Your task to perform on an android device: star an email in the gmail app Image 0: 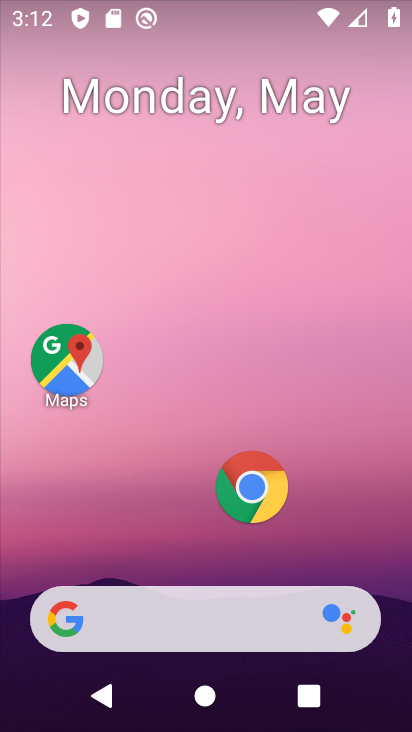
Step 0: drag from (165, 531) to (153, 54)
Your task to perform on an android device: star an email in the gmail app Image 1: 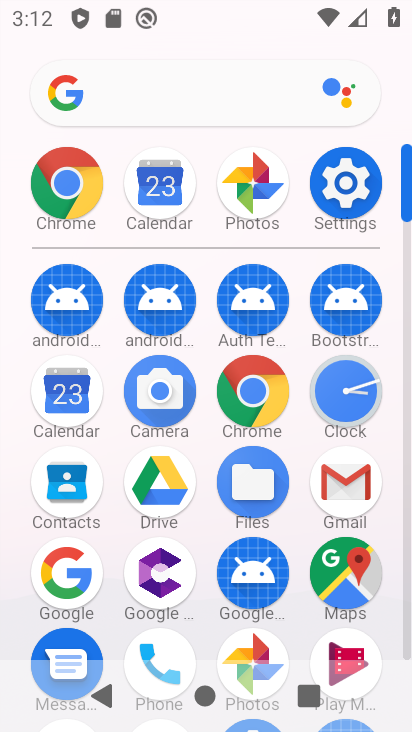
Step 1: click (349, 466)
Your task to perform on an android device: star an email in the gmail app Image 2: 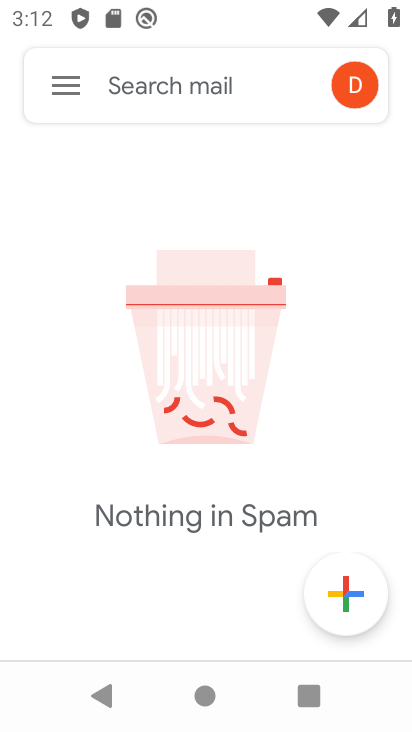
Step 2: click (57, 93)
Your task to perform on an android device: star an email in the gmail app Image 3: 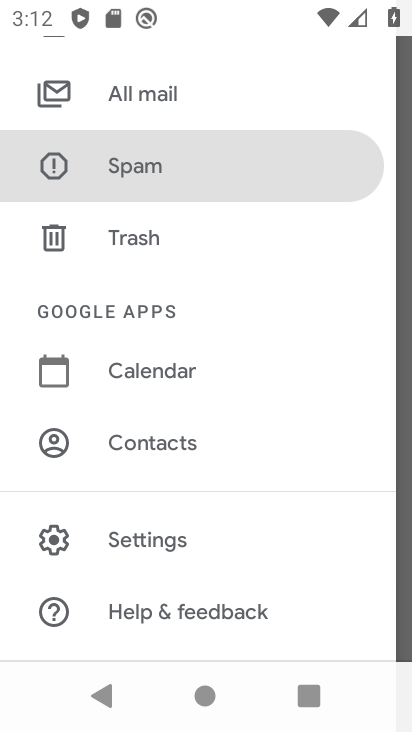
Step 3: click (164, 85)
Your task to perform on an android device: star an email in the gmail app Image 4: 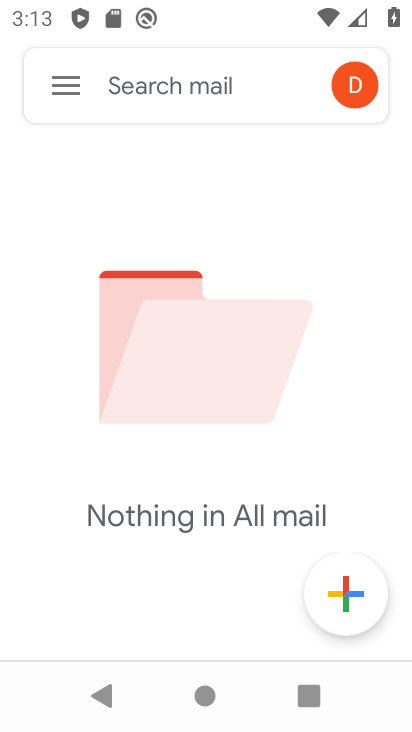
Step 4: task complete